Your task to perform on an android device: What's on my calendar tomorrow? Image 0: 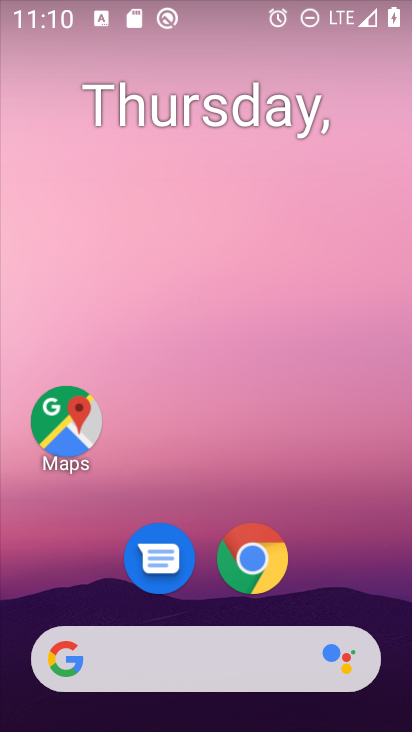
Step 0: drag from (383, 607) to (346, 99)
Your task to perform on an android device: What's on my calendar tomorrow? Image 1: 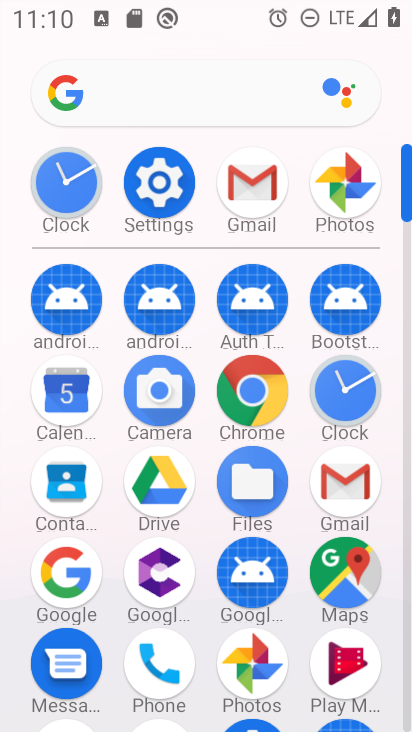
Step 1: click (406, 695)
Your task to perform on an android device: What's on my calendar tomorrow? Image 2: 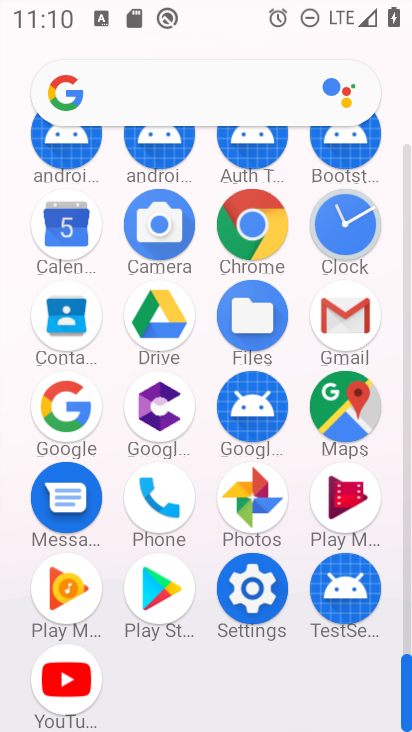
Step 2: click (61, 219)
Your task to perform on an android device: What's on my calendar tomorrow? Image 3: 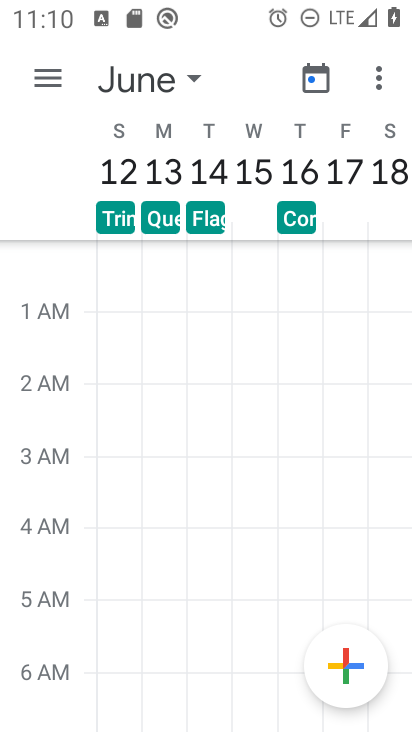
Step 3: click (39, 80)
Your task to perform on an android device: What's on my calendar tomorrow? Image 4: 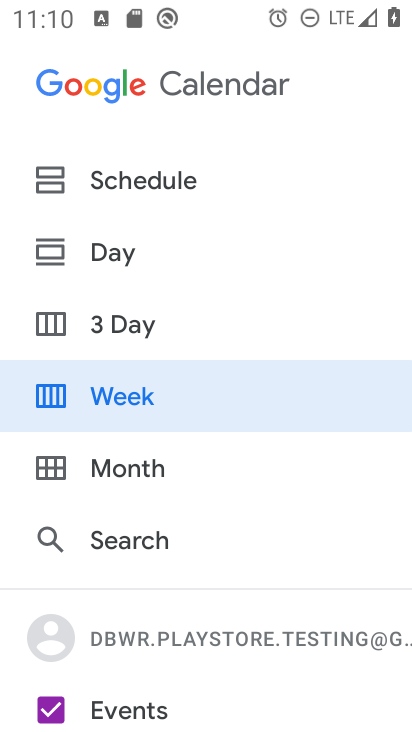
Step 4: click (106, 250)
Your task to perform on an android device: What's on my calendar tomorrow? Image 5: 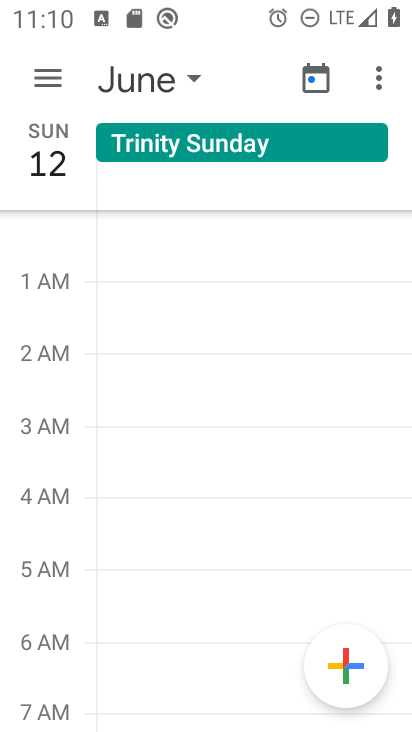
Step 5: click (182, 84)
Your task to perform on an android device: What's on my calendar tomorrow? Image 6: 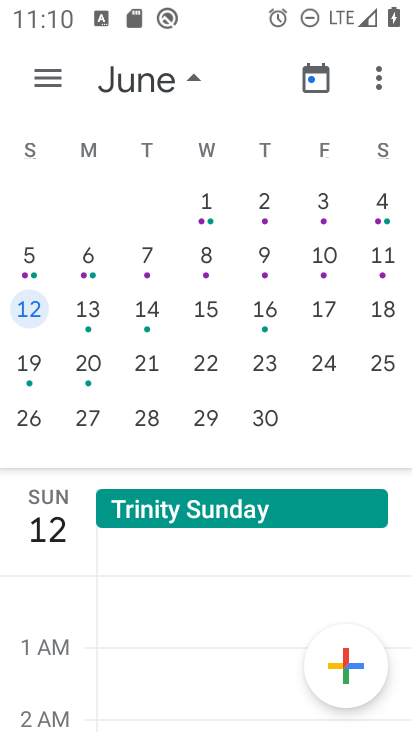
Step 6: drag from (26, 255) to (360, 246)
Your task to perform on an android device: What's on my calendar tomorrow? Image 7: 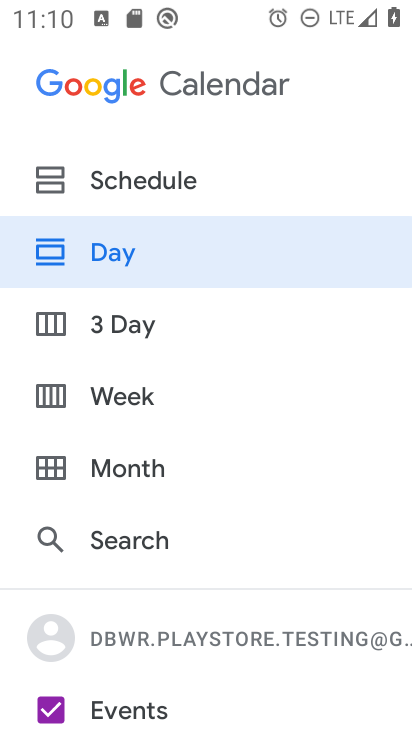
Step 7: click (228, 251)
Your task to perform on an android device: What's on my calendar tomorrow? Image 8: 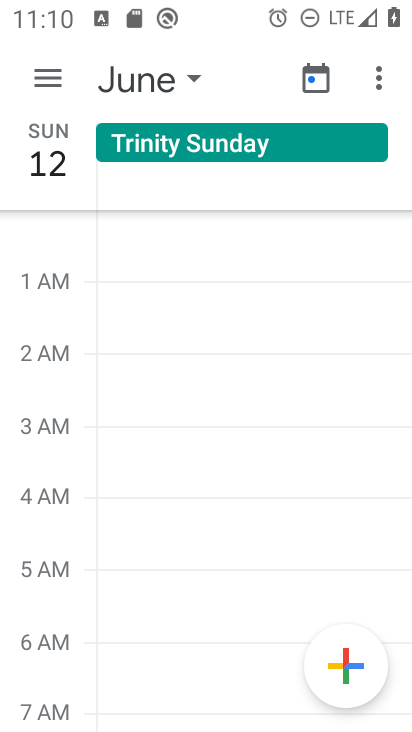
Step 8: click (174, 67)
Your task to perform on an android device: What's on my calendar tomorrow? Image 9: 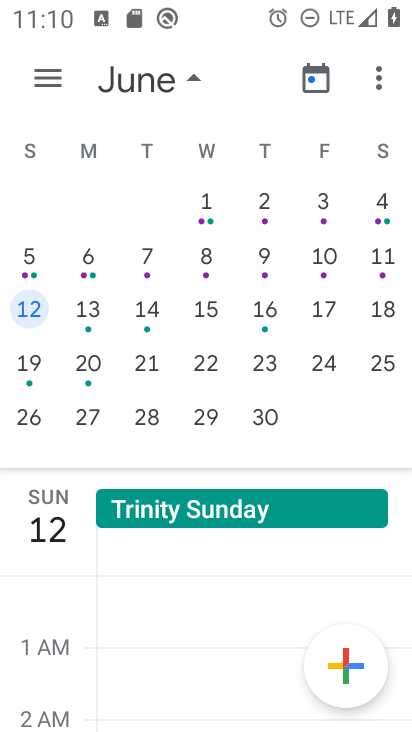
Step 9: drag from (94, 288) to (354, 295)
Your task to perform on an android device: What's on my calendar tomorrow? Image 10: 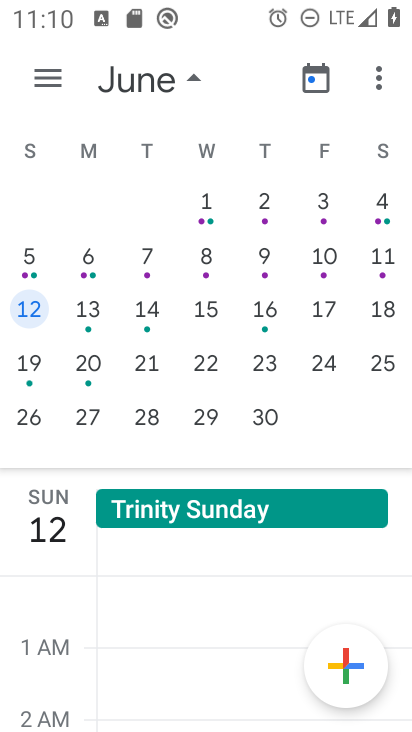
Step 10: click (82, 306)
Your task to perform on an android device: What's on my calendar tomorrow? Image 11: 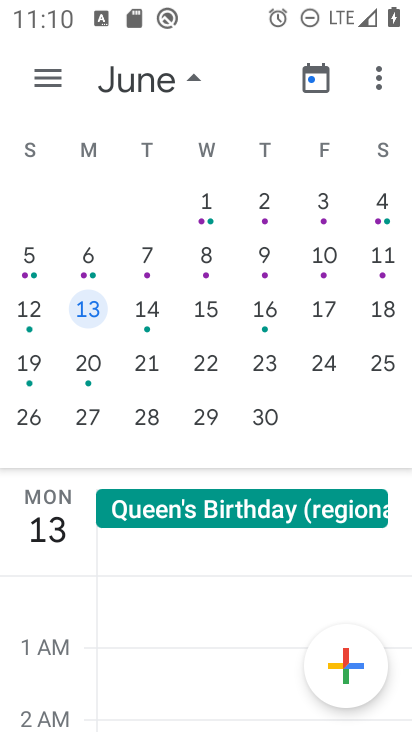
Step 11: task complete